Your task to perform on an android device: toggle location history Image 0: 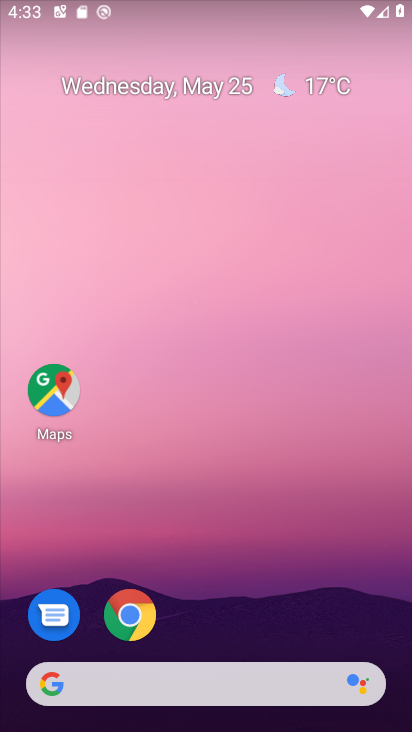
Step 0: drag from (300, 488) to (219, 11)
Your task to perform on an android device: toggle location history Image 1: 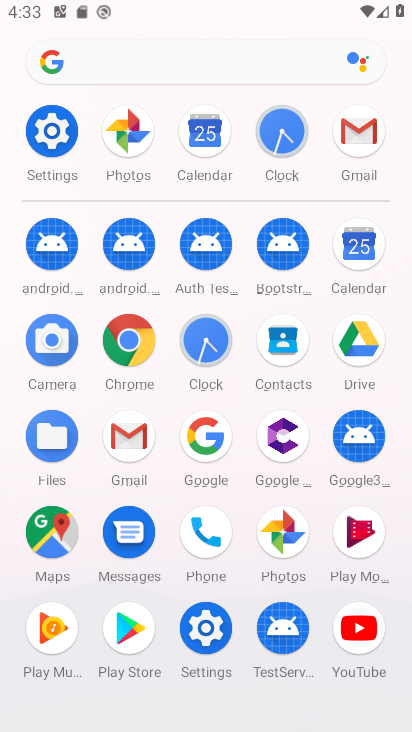
Step 1: click (52, 118)
Your task to perform on an android device: toggle location history Image 2: 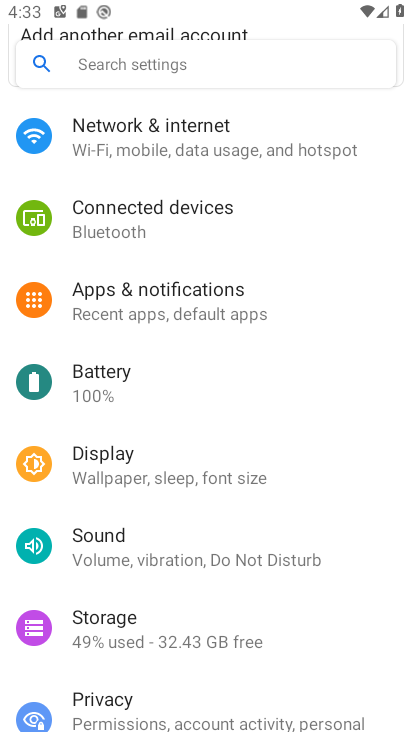
Step 2: drag from (249, 615) to (270, 275)
Your task to perform on an android device: toggle location history Image 3: 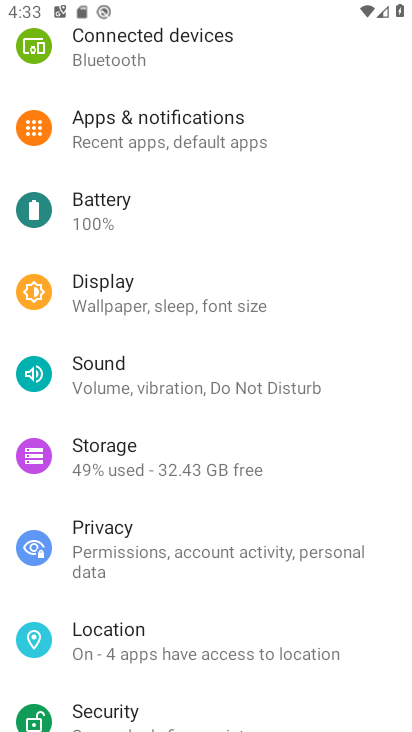
Step 3: click (196, 629)
Your task to perform on an android device: toggle location history Image 4: 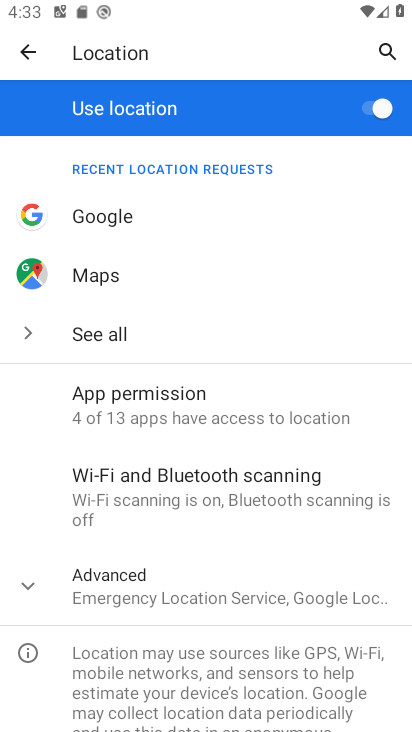
Step 4: click (221, 578)
Your task to perform on an android device: toggle location history Image 5: 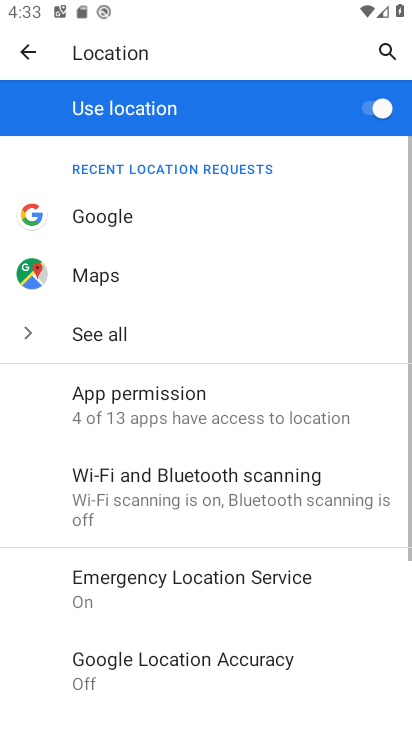
Step 5: drag from (236, 657) to (241, 398)
Your task to perform on an android device: toggle location history Image 6: 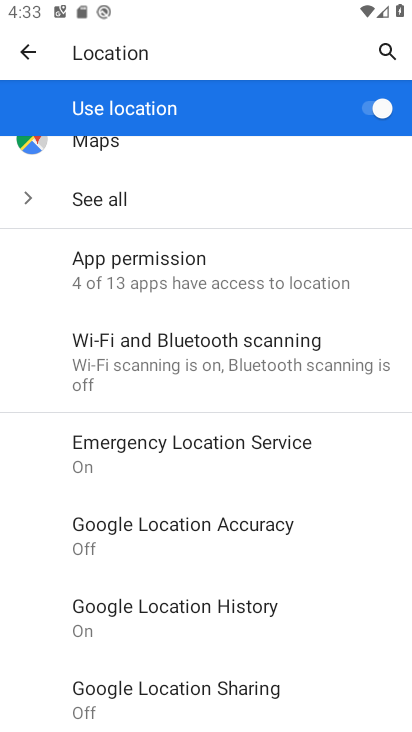
Step 6: click (228, 605)
Your task to perform on an android device: toggle location history Image 7: 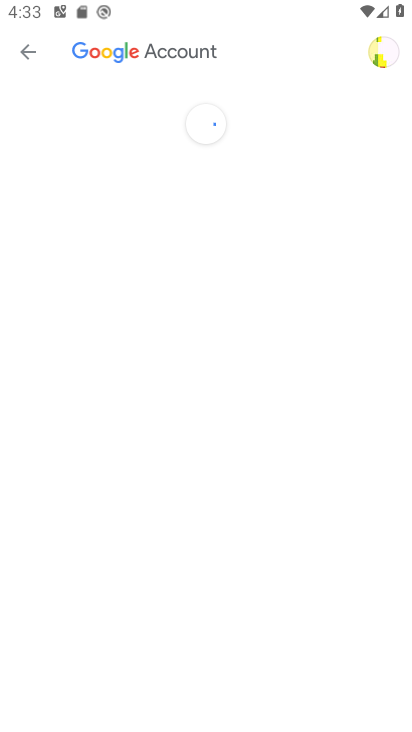
Step 7: drag from (190, 637) to (265, 112)
Your task to perform on an android device: toggle location history Image 8: 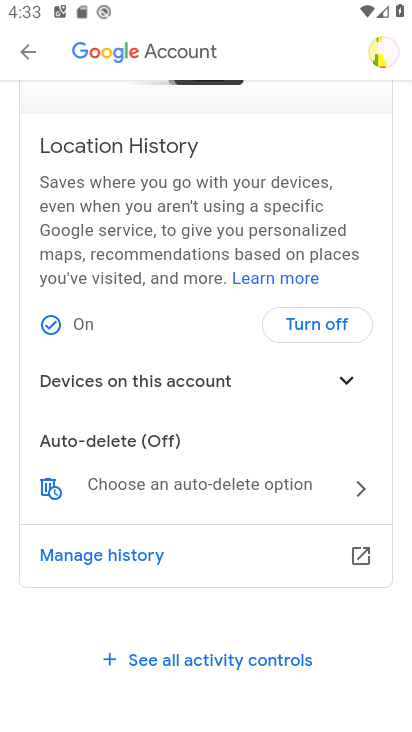
Step 8: click (311, 305)
Your task to perform on an android device: toggle location history Image 9: 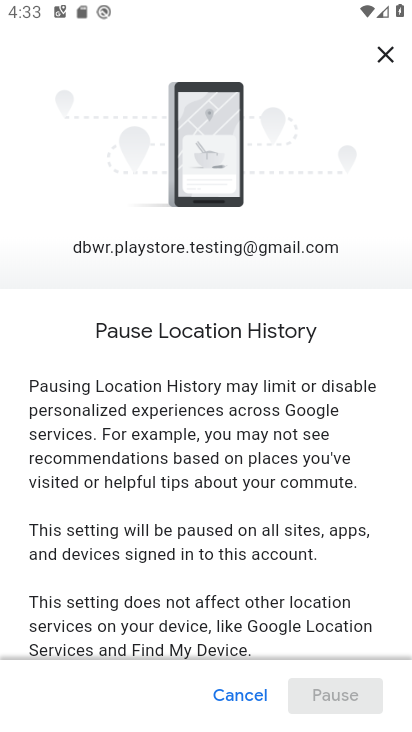
Step 9: drag from (320, 580) to (264, 45)
Your task to perform on an android device: toggle location history Image 10: 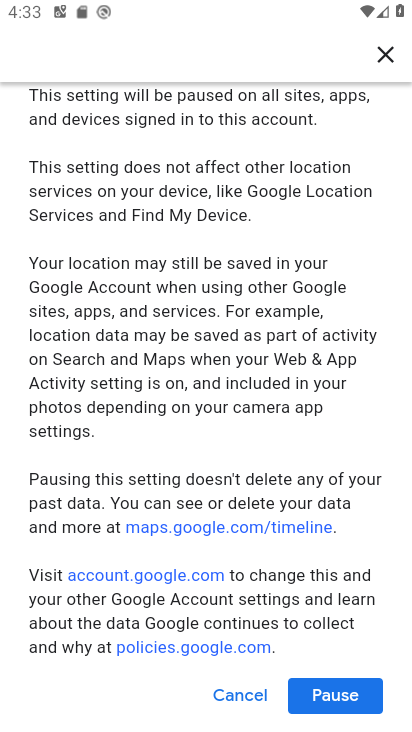
Step 10: click (327, 695)
Your task to perform on an android device: toggle location history Image 11: 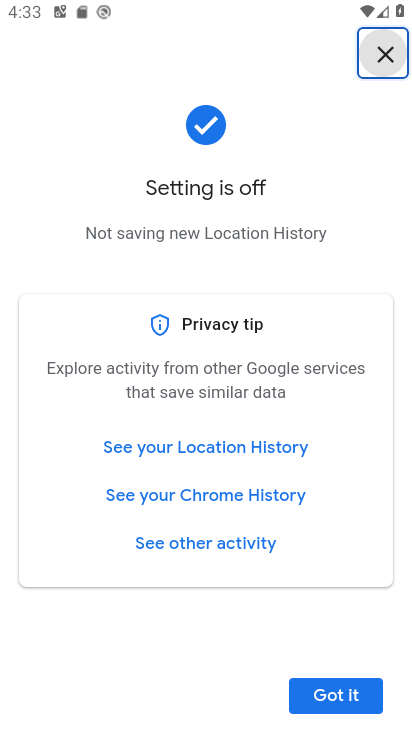
Step 11: click (349, 695)
Your task to perform on an android device: toggle location history Image 12: 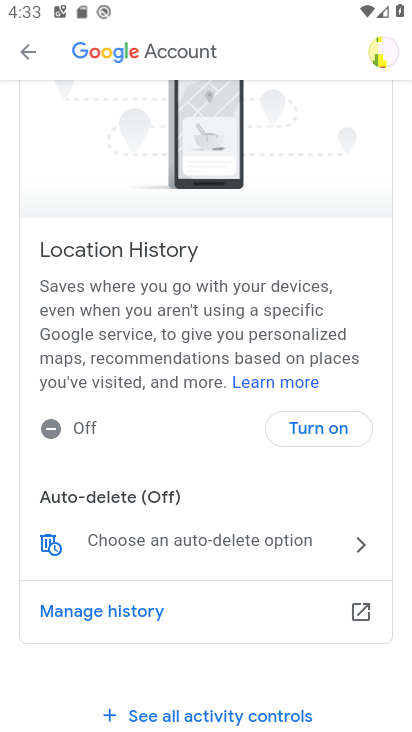
Step 12: task complete